Your task to perform on an android device: When is my next meeting? Image 0: 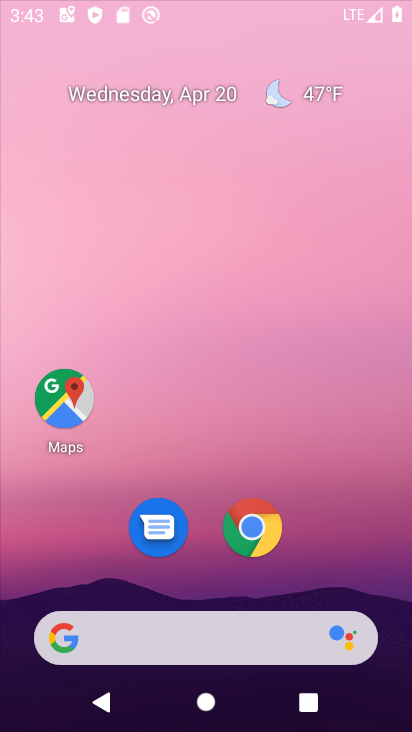
Step 0: drag from (324, 575) to (397, 219)
Your task to perform on an android device: When is my next meeting? Image 1: 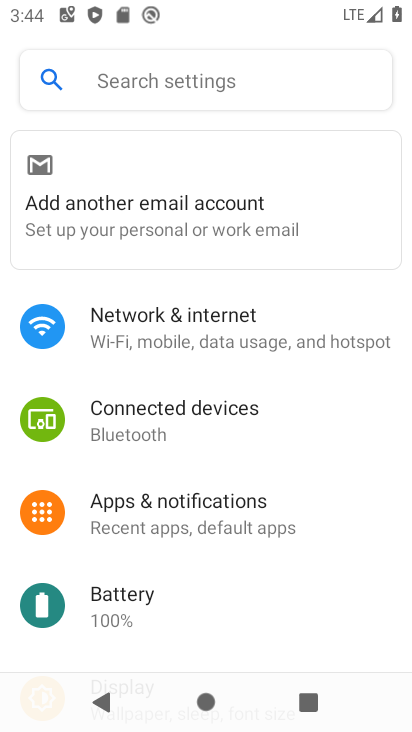
Step 1: press home button
Your task to perform on an android device: When is my next meeting? Image 2: 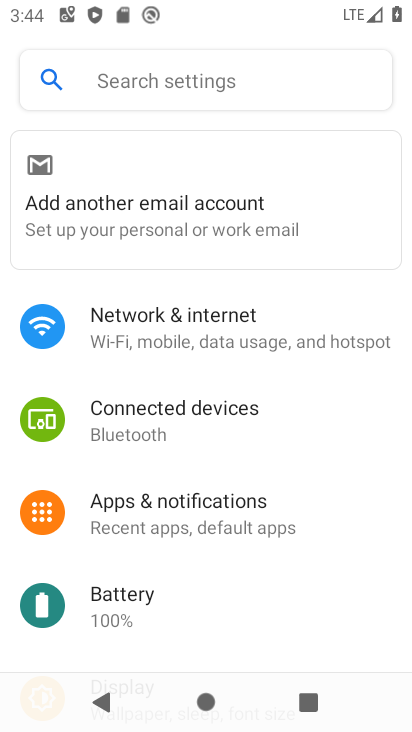
Step 2: click (355, 408)
Your task to perform on an android device: When is my next meeting? Image 3: 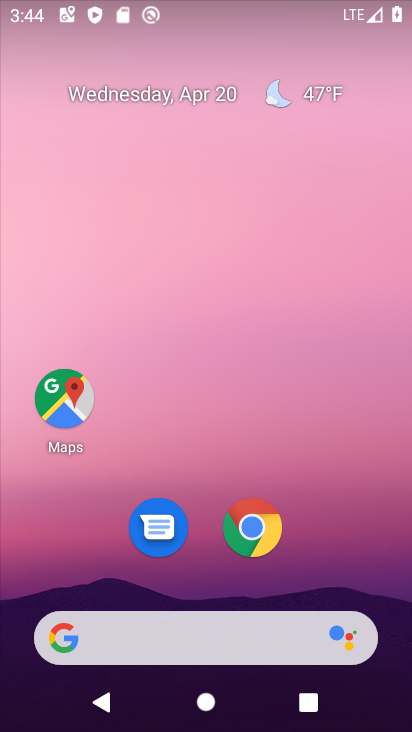
Step 3: drag from (353, 547) to (333, 193)
Your task to perform on an android device: When is my next meeting? Image 4: 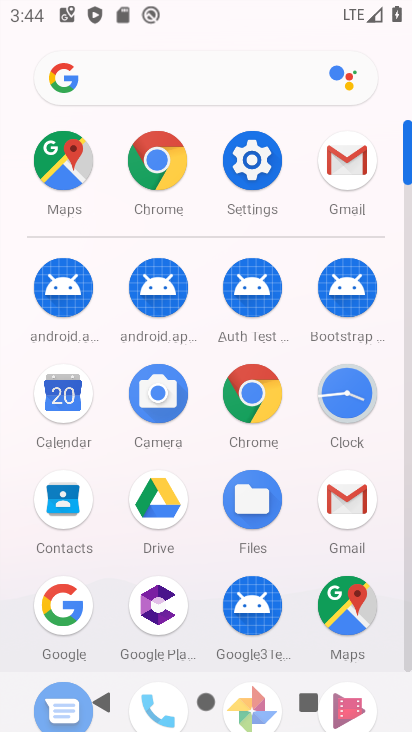
Step 4: click (73, 417)
Your task to perform on an android device: When is my next meeting? Image 5: 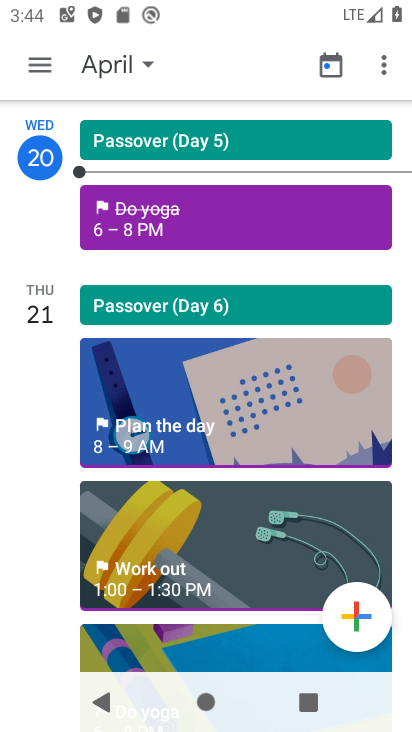
Step 5: task complete